Your task to perform on an android device: Go to calendar. Show me events next week Image 0: 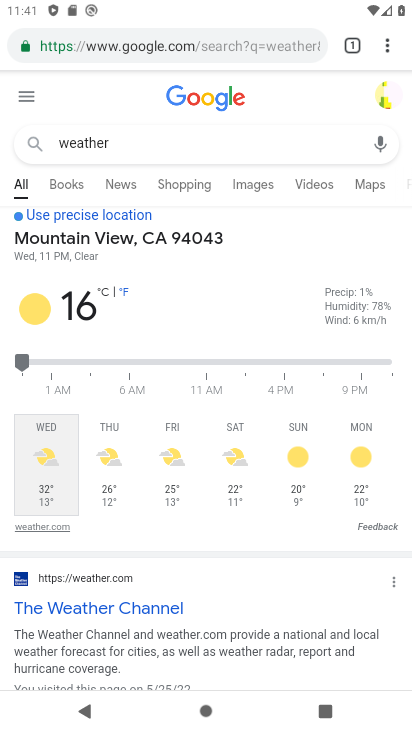
Step 0: press home button
Your task to perform on an android device: Go to calendar. Show me events next week Image 1: 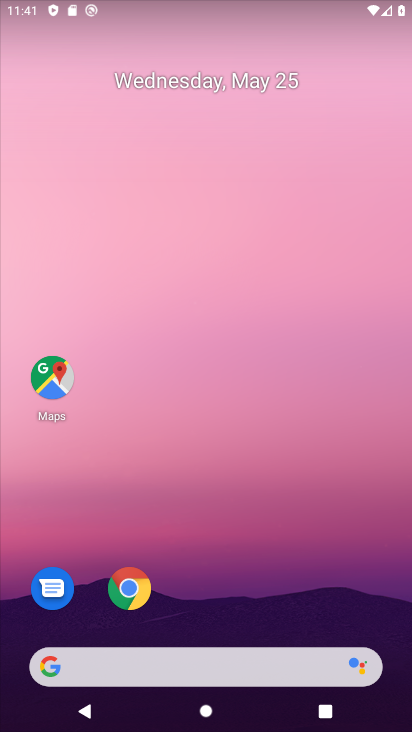
Step 1: drag from (219, 594) to (223, 210)
Your task to perform on an android device: Go to calendar. Show me events next week Image 2: 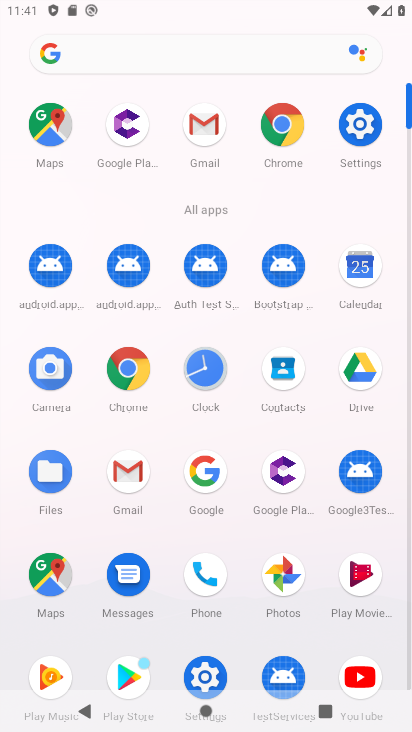
Step 2: click (363, 272)
Your task to perform on an android device: Go to calendar. Show me events next week Image 3: 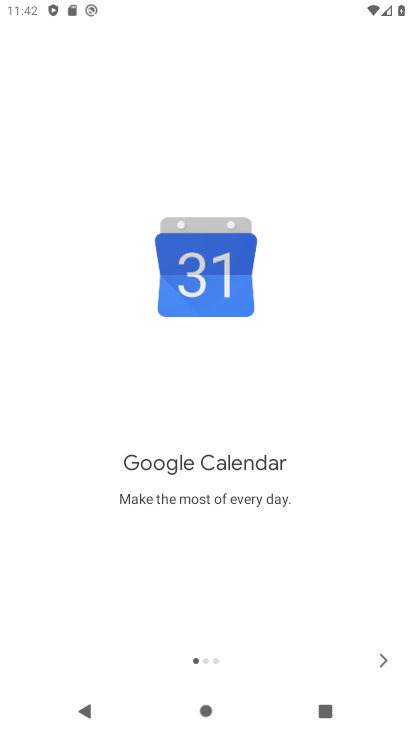
Step 3: click (379, 659)
Your task to perform on an android device: Go to calendar. Show me events next week Image 4: 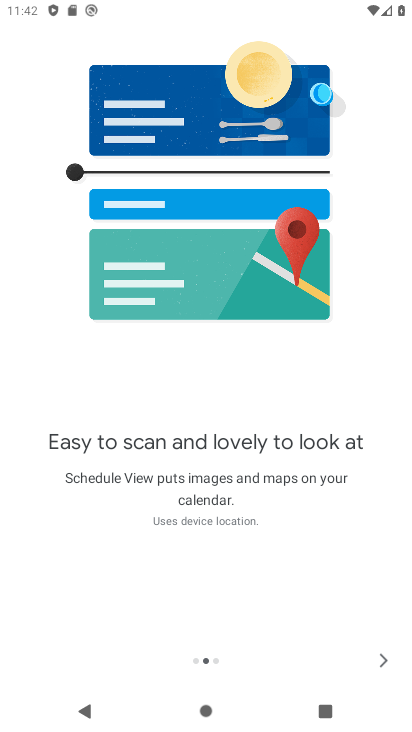
Step 4: click (379, 659)
Your task to perform on an android device: Go to calendar. Show me events next week Image 5: 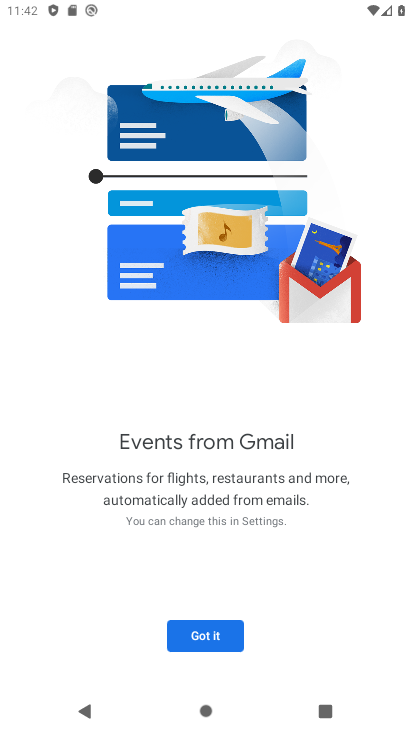
Step 5: click (217, 627)
Your task to perform on an android device: Go to calendar. Show me events next week Image 6: 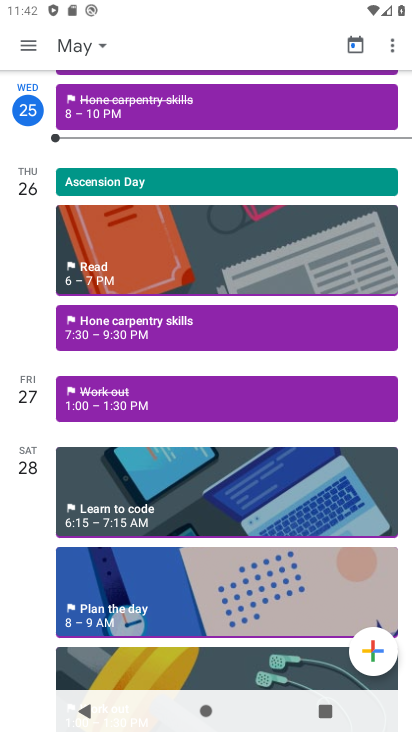
Step 6: click (96, 48)
Your task to perform on an android device: Go to calendar. Show me events next week Image 7: 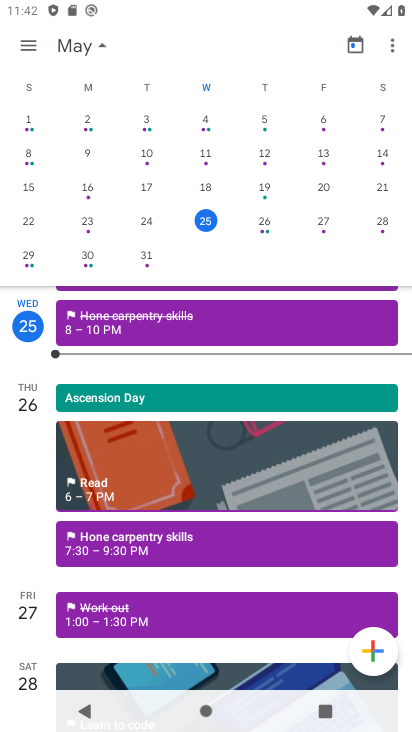
Step 7: click (385, 221)
Your task to perform on an android device: Go to calendar. Show me events next week Image 8: 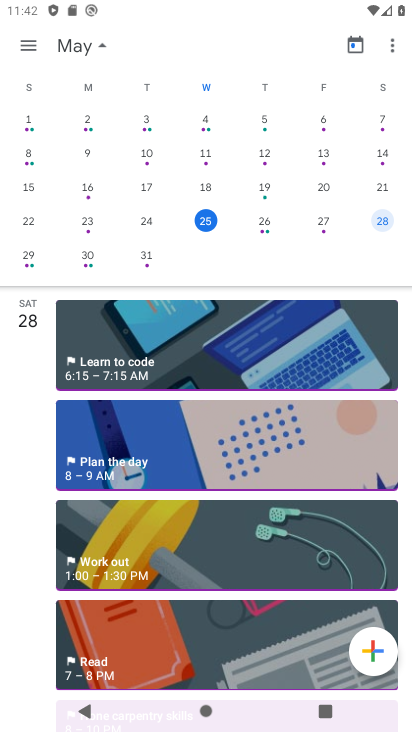
Step 8: click (43, 254)
Your task to perform on an android device: Go to calendar. Show me events next week Image 9: 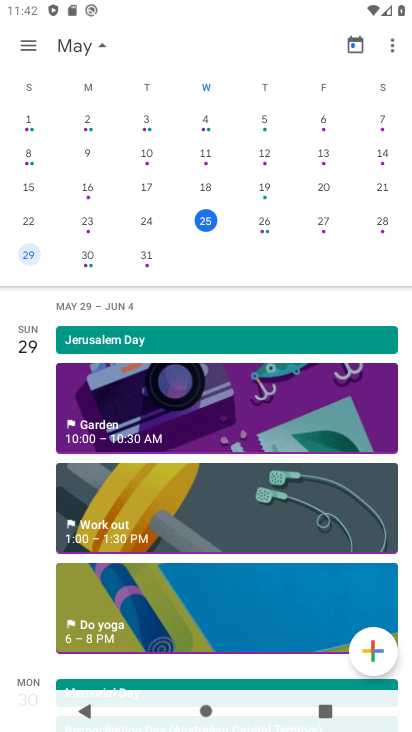
Step 9: click (87, 261)
Your task to perform on an android device: Go to calendar. Show me events next week Image 10: 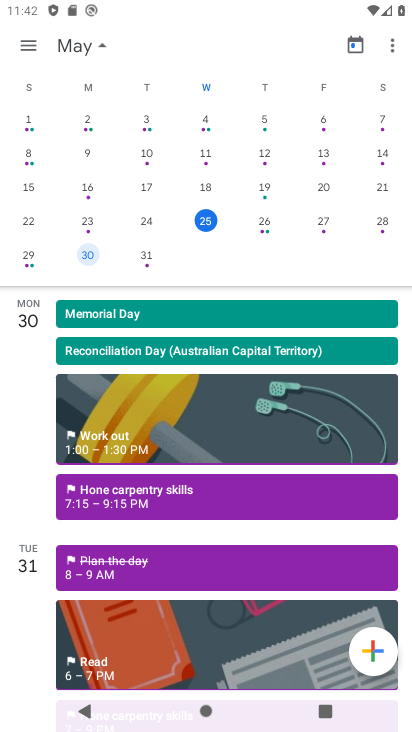
Step 10: click (154, 264)
Your task to perform on an android device: Go to calendar. Show me events next week Image 11: 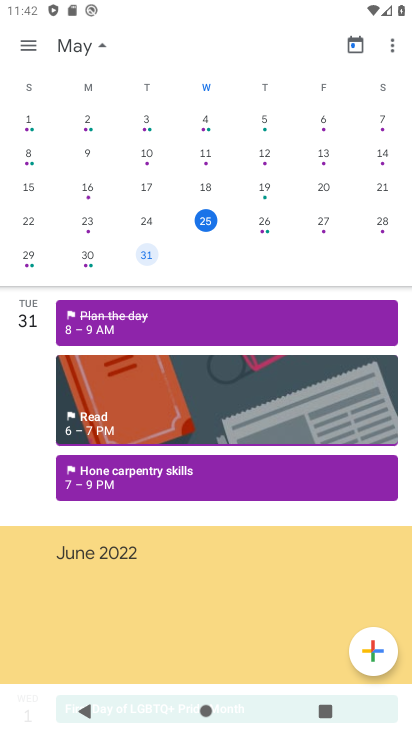
Step 11: task complete